Your task to perform on an android device: turn off location Image 0: 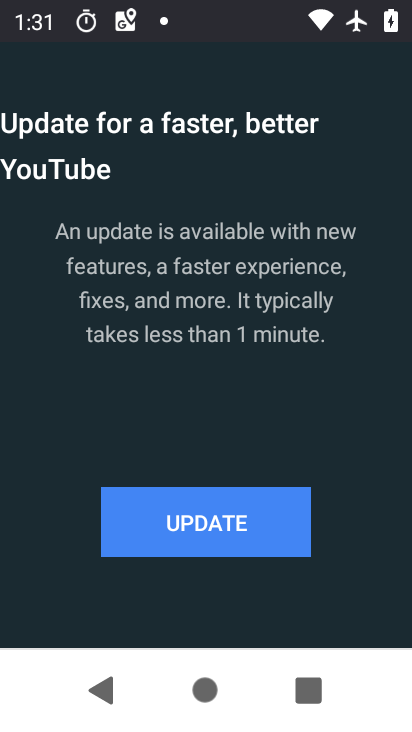
Step 0: press home button
Your task to perform on an android device: turn off location Image 1: 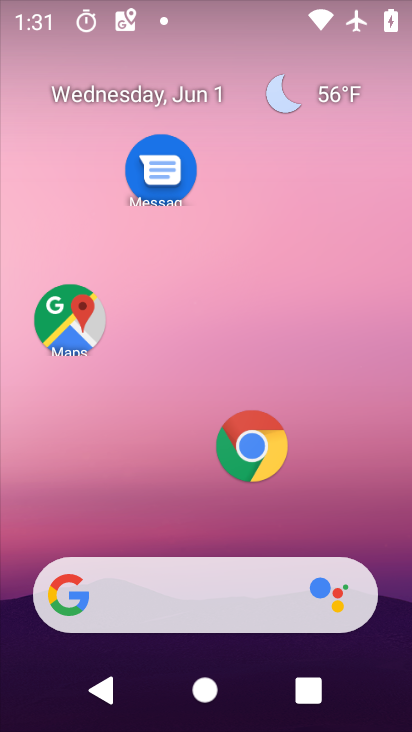
Step 1: drag from (182, 529) to (243, 47)
Your task to perform on an android device: turn off location Image 2: 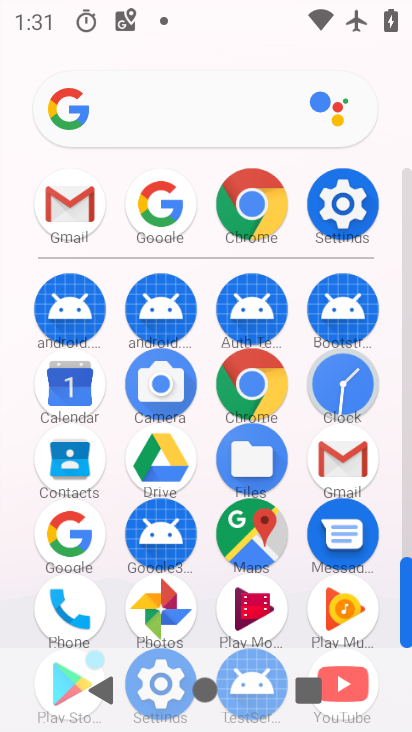
Step 2: drag from (211, 275) to (218, 67)
Your task to perform on an android device: turn off location Image 3: 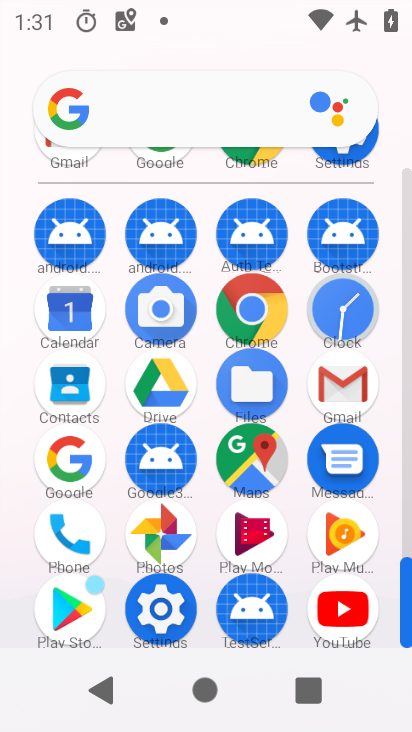
Step 3: click (155, 616)
Your task to perform on an android device: turn off location Image 4: 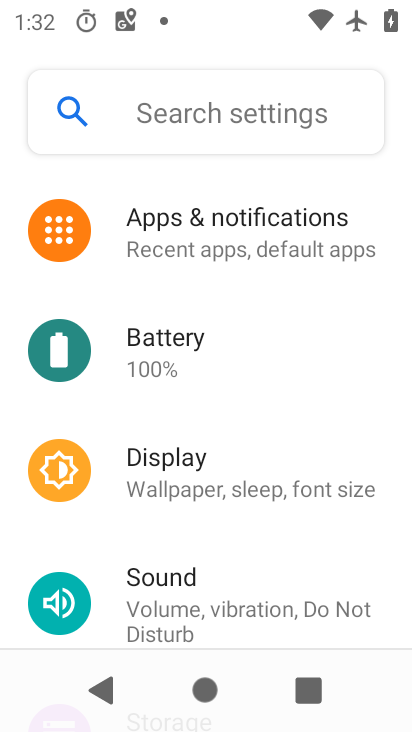
Step 4: drag from (241, 566) to (243, 270)
Your task to perform on an android device: turn off location Image 5: 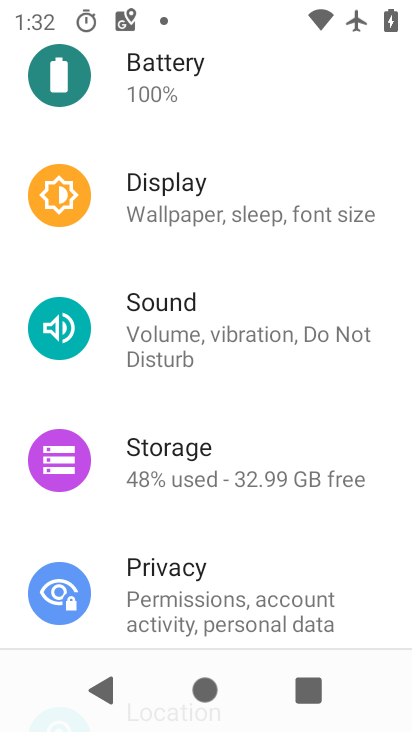
Step 5: drag from (251, 516) to (243, 237)
Your task to perform on an android device: turn off location Image 6: 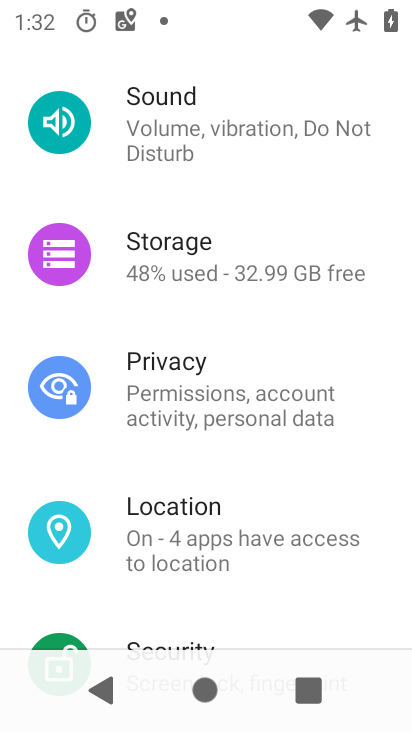
Step 6: click (215, 520)
Your task to perform on an android device: turn off location Image 7: 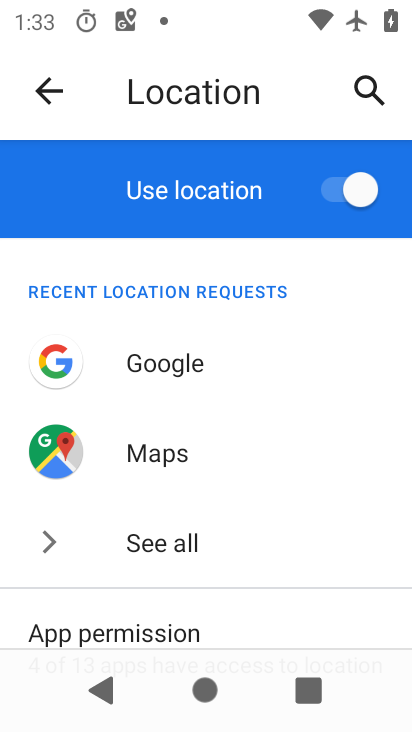
Step 7: click (334, 206)
Your task to perform on an android device: turn off location Image 8: 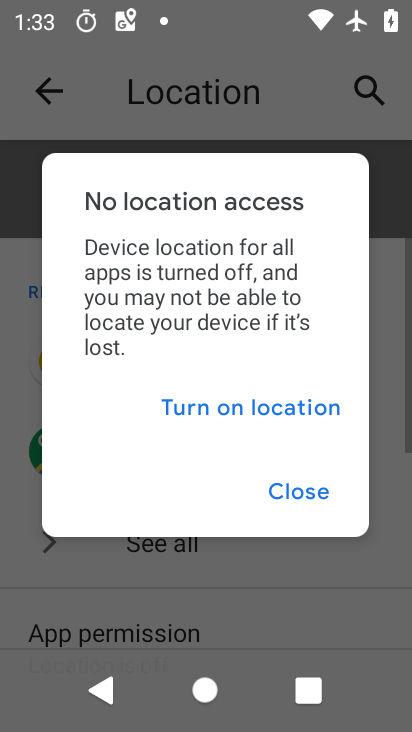
Step 8: task complete